Your task to perform on an android device: Go to battery settings Image 0: 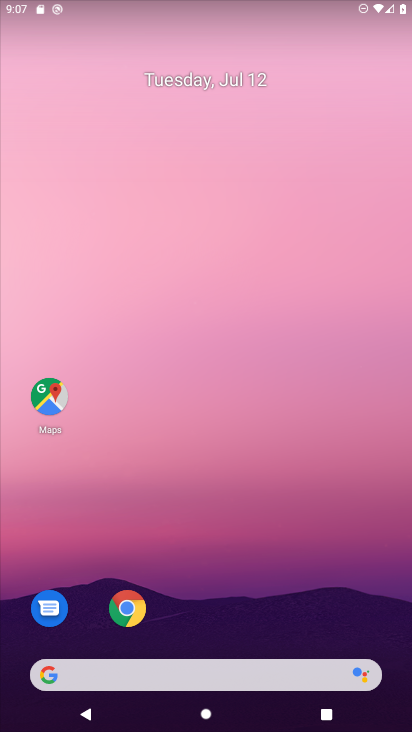
Step 0: drag from (245, 6) to (258, 588)
Your task to perform on an android device: Go to battery settings Image 1: 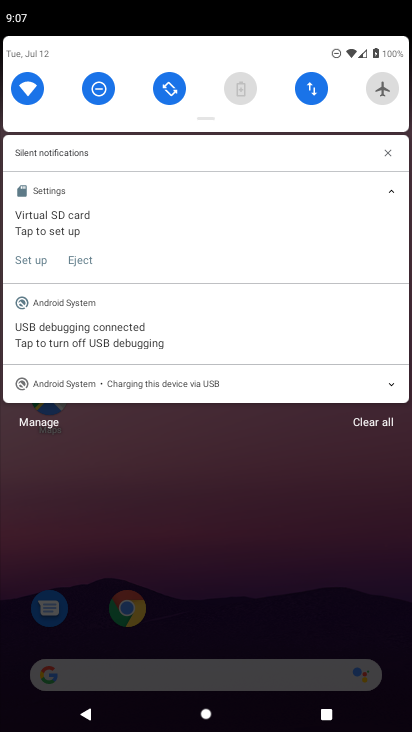
Step 1: click (240, 90)
Your task to perform on an android device: Go to battery settings Image 2: 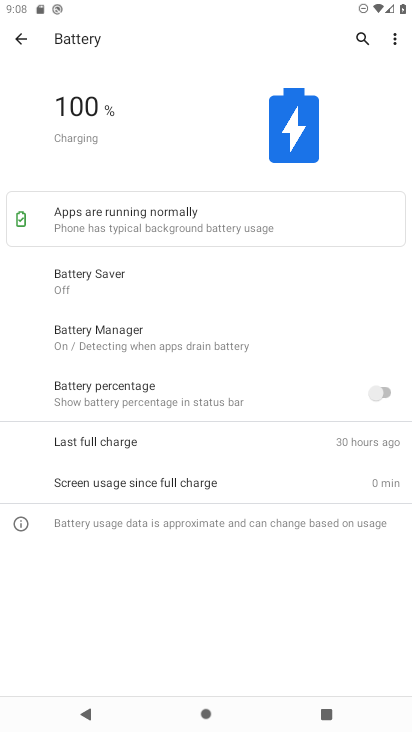
Step 2: task complete